Your task to perform on an android device: Is it going to rain this weekend? Image 0: 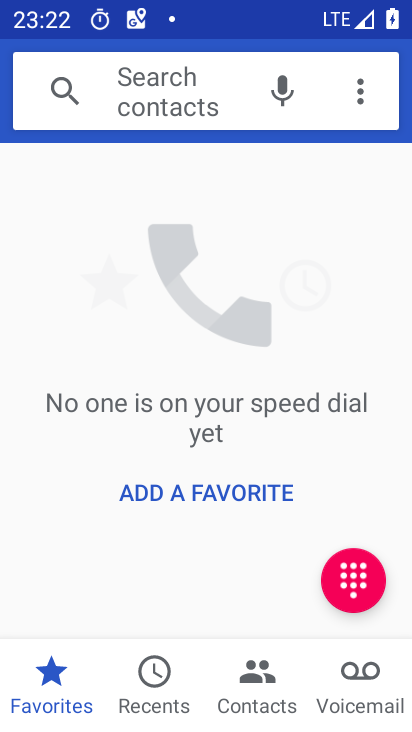
Step 0: press home button
Your task to perform on an android device: Is it going to rain this weekend? Image 1: 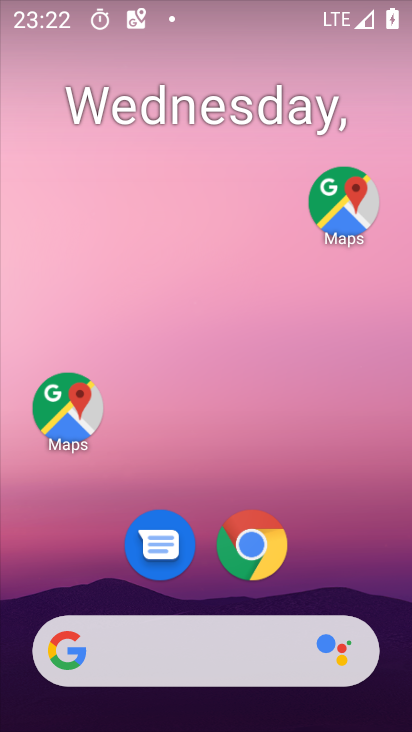
Step 1: click (168, 636)
Your task to perform on an android device: Is it going to rain this weekend? Image 2: 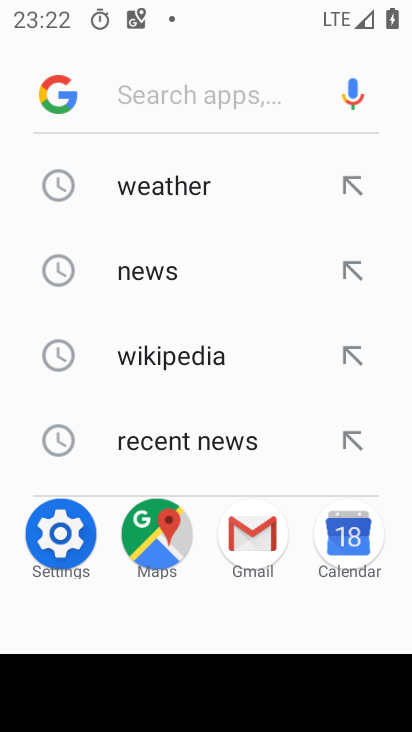
Step 2: type "is it going to rain this weekend"
Your task to perform on an android device: Is it going to rain this weekend? Image 3: 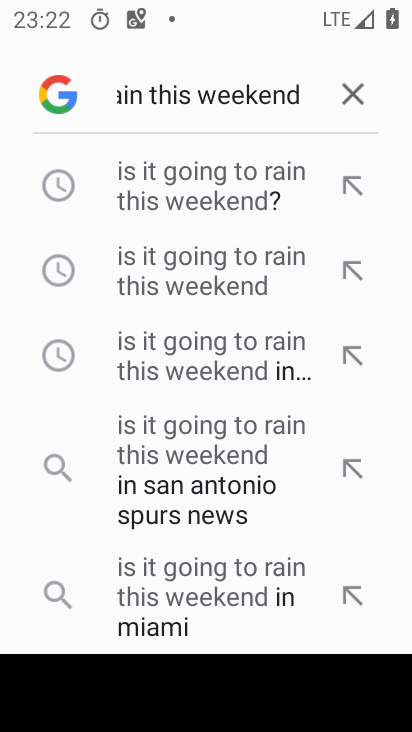
Step 3: click (233, 204)
Your task to perform on an android device: Is it going to rain this weekend? Image 4: 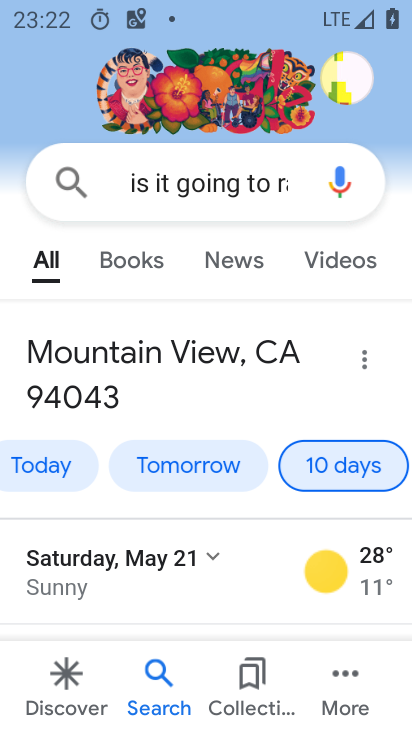
Step 4: task complete